Your task to perform on an android device: What's the weather today? Image 0: 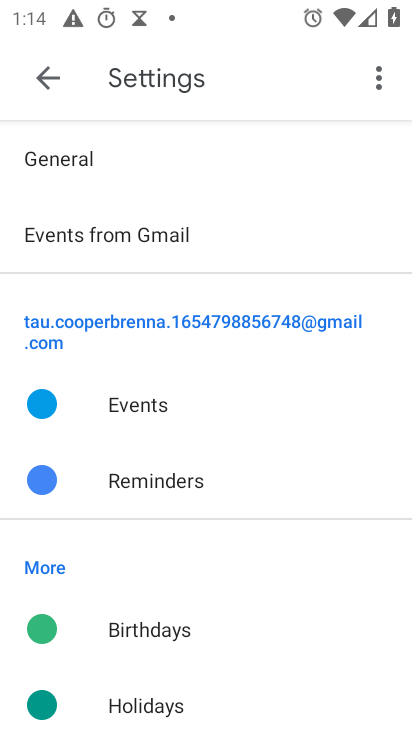
Step 0: press home button
Your task to perform on an android device: What's the weather today? Image 1: 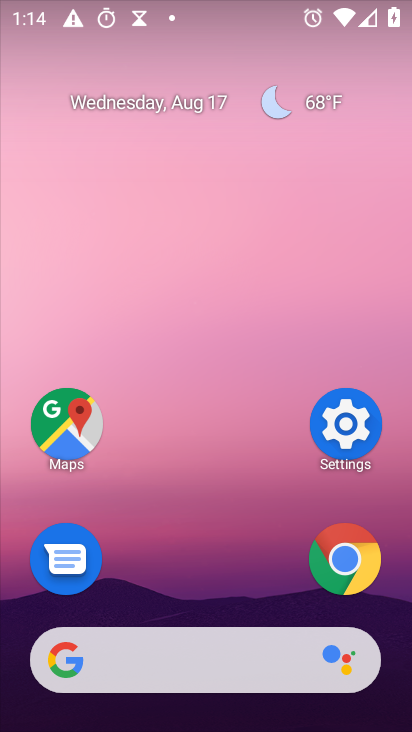
Step 1: click (147, 657)
Your task to perform on an android device: What's the weather today? Image 2: 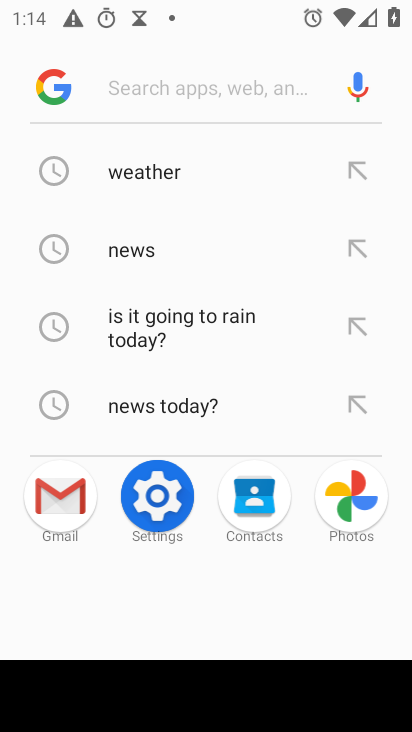
Step 2: click (130, 171)
Your task to perform on an android device: What's the weather today? Image 3: 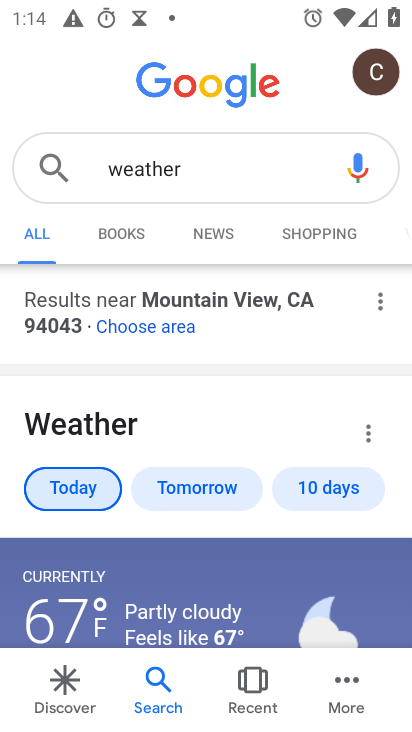
Step 3: task complete